Your task to perform on an android device: Check the weather Image 0: 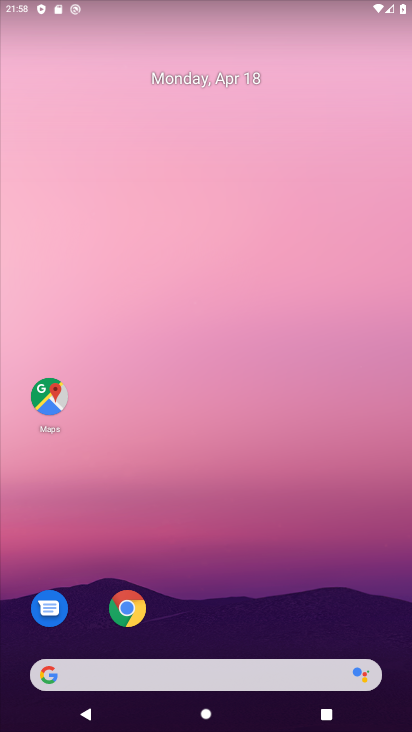
Step 0: drag from (244, 586) to (228, 88)
Your task to perform on an android device: Check the weather Image 1: 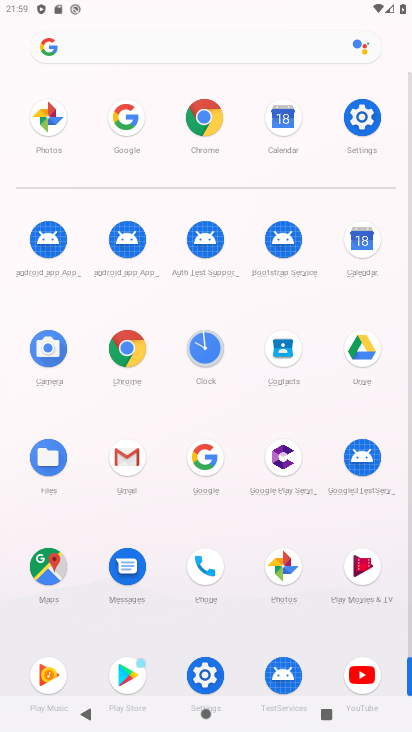
Step 1: drag from (83, 486) to (84, 425)
Your task to perform on an android device: Check the weather Image 2: 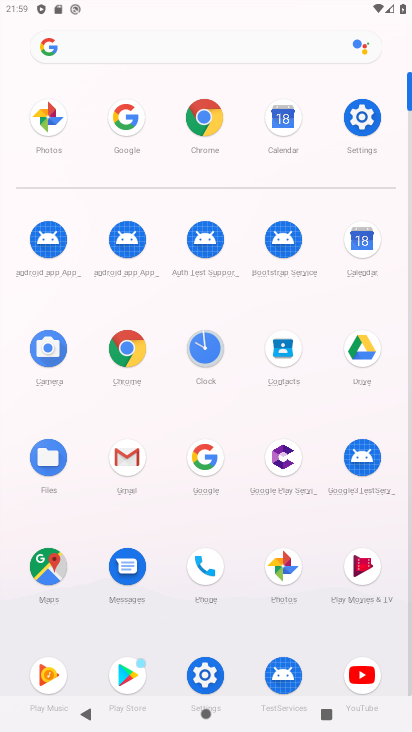
Step 2: click (84, 420)
Your task to perform on an android device: Check the weather Image 3: 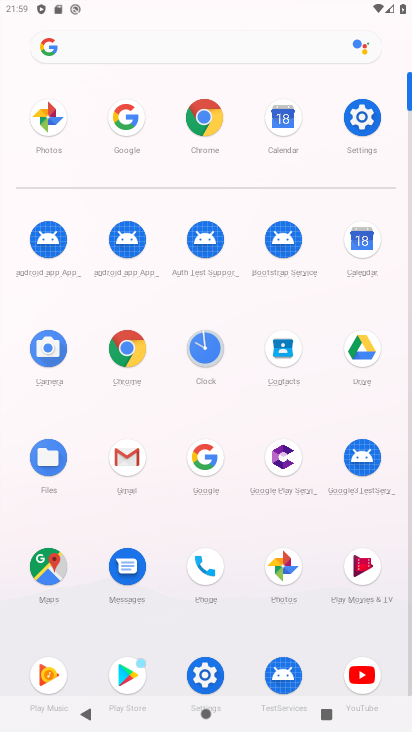
Step 3: click (127, 120)
Your task to perform on an android device: Check the weather Image 4: 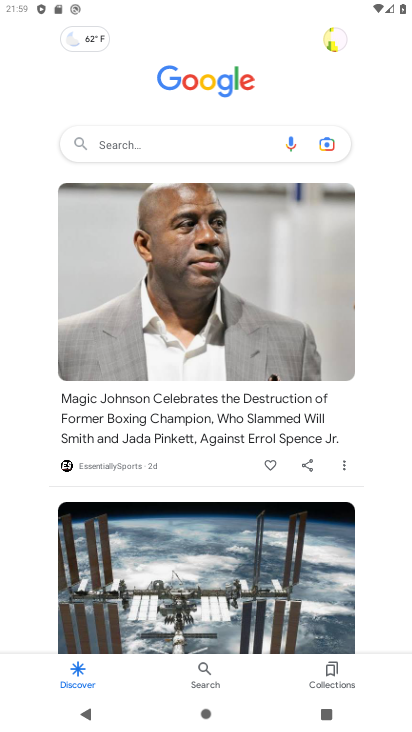
Step 4: click (142, 143)
Your task to perform on an android device: Check the weather Image 5: 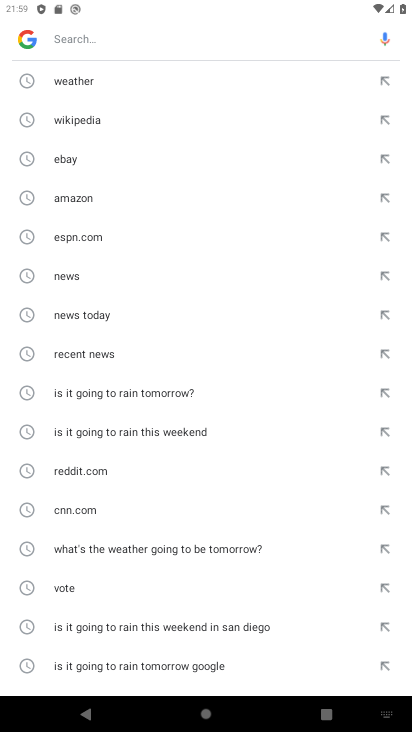
Step 5: click (94, 80)
Your task to perform on an android device: Check the weather Image 6: 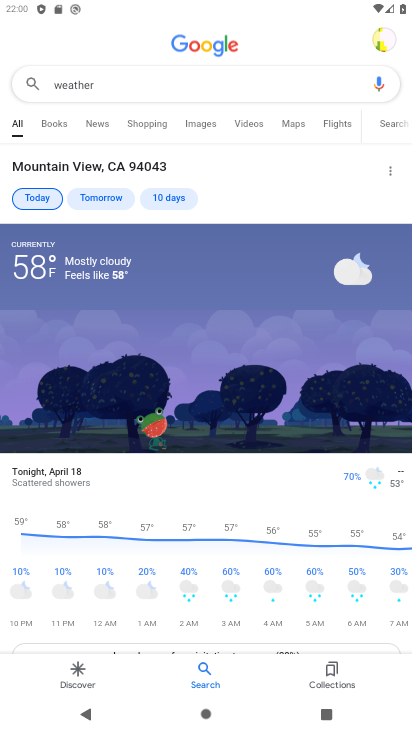
Step 6: task complete